Your task to perform on an android device: Go to battery settings Image 0: 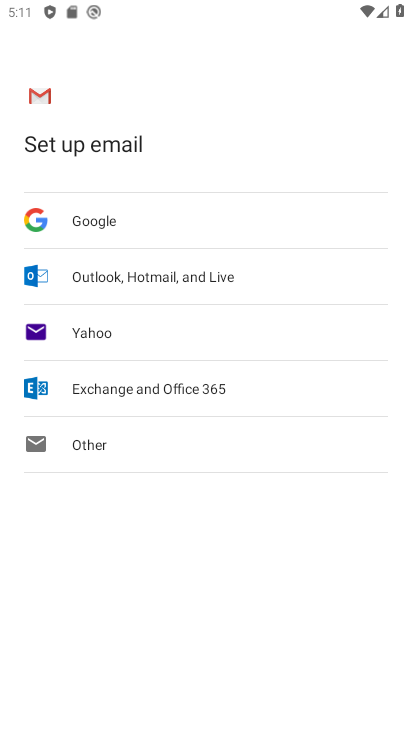
Step 0: press home button
Your task to perform on an android device: Go to battery settings Image 1: 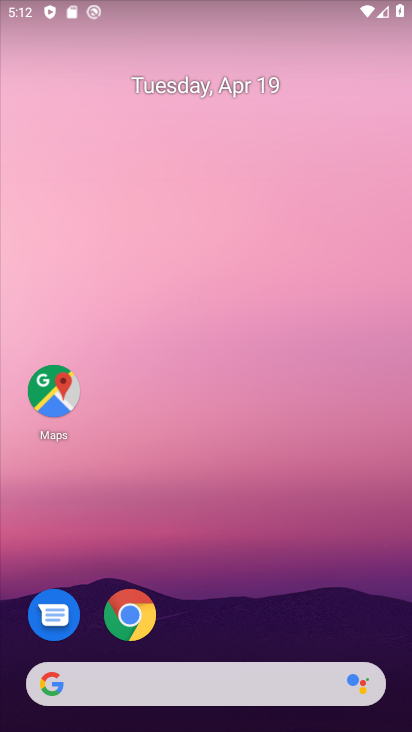
Step 1: drag from (220, 727) to (222, 142)
Your task to perform on an android device: Go to battery settings Image 2: 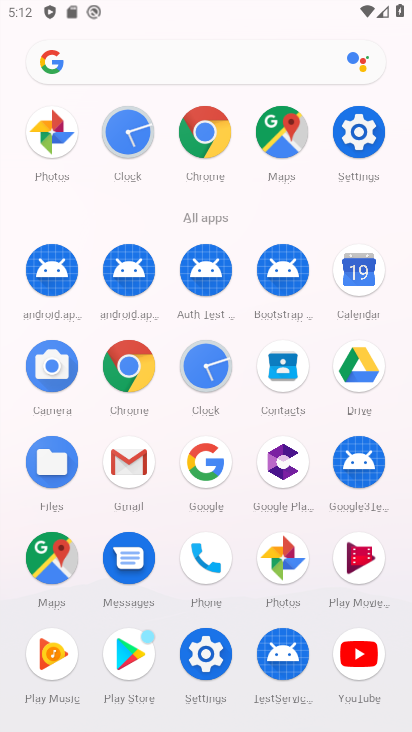
Step 2: click (364, 127)
Your task to perform on an android device: Go to battery settings Image 3: 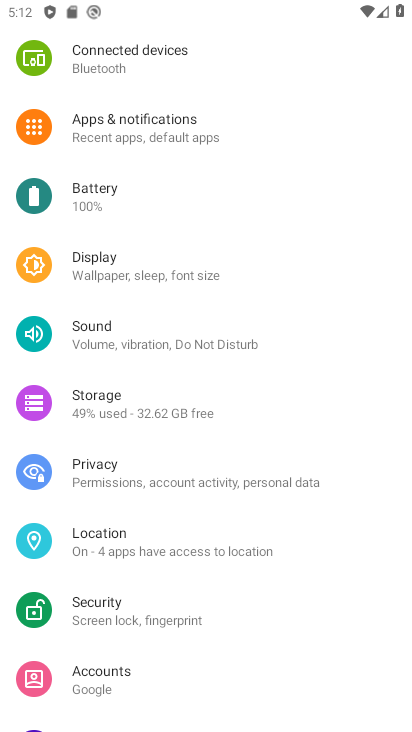
Step 3: drag from (178, 668) to (180, 209)
Your task to perform on an android device: Go to battery settings Image 4: 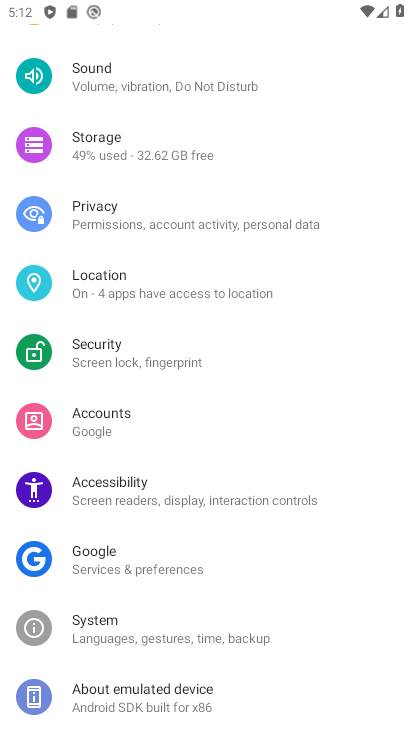
Step 4: drag from (195, 130) to (204, 589)
Your task to perform on an android device: Go to battery settings Image 5: 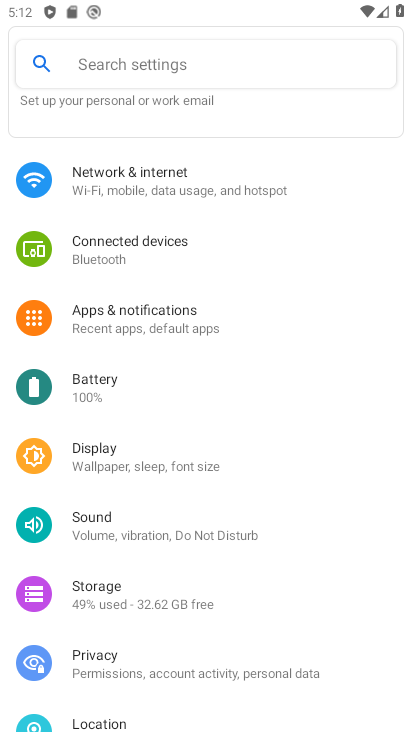
Step 5: click (94, 382)
Your task to perform on an android device: Go to battery settings Image 6: 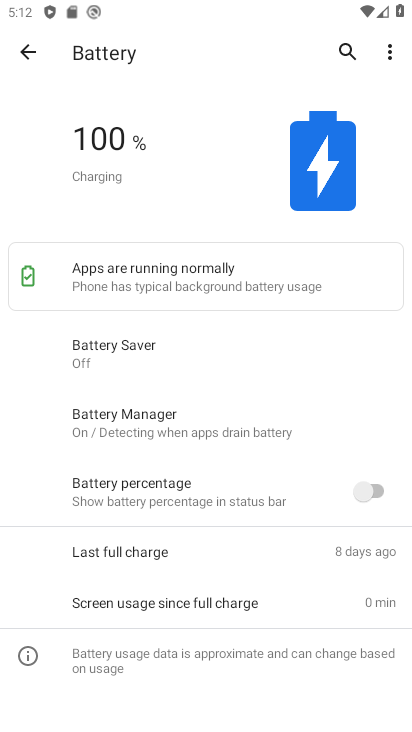
Step 6: task complete